Your task to perform on an android device: Open Chrome and go to settings Image 0: 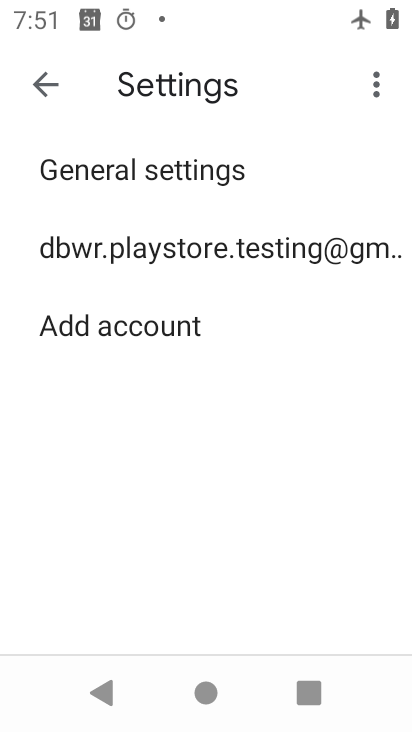
Step 0: press home button
Your task to perform on an android device: Open Chrome and go to settings Image 1: 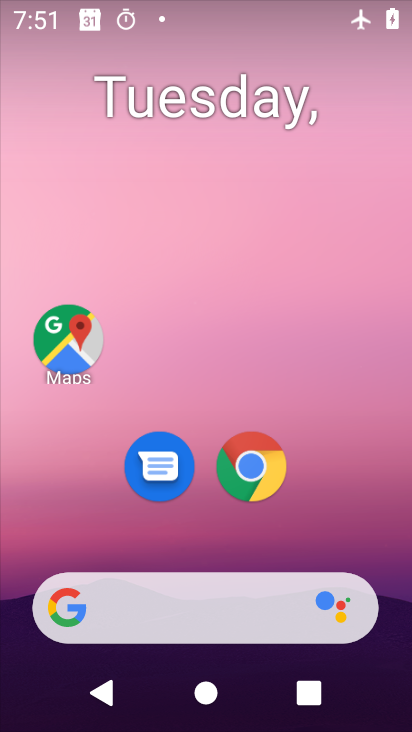
Step 1: click (250, 469)
Your task to perform on an android device: Open Chrome and go to settings Image 2: 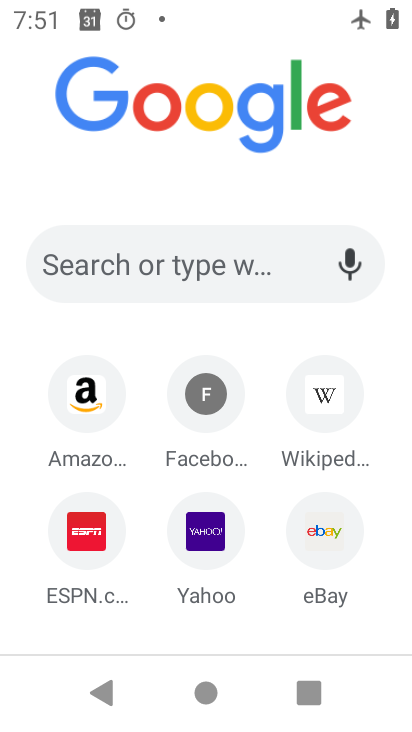
Step 2: drag from (10, 146) to (0, 311)
Your task to perform on an android device: Open Chrome and go to settings Image 3: 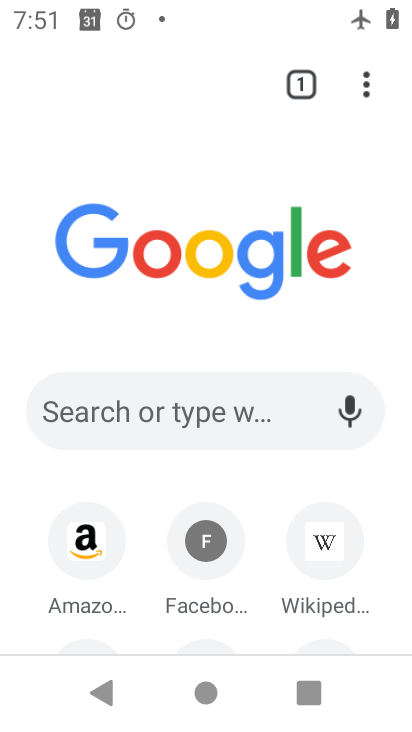
Step 3: click (361, 96)
Your task to perform on an android device: Open Chrome and go to settings Image 4: 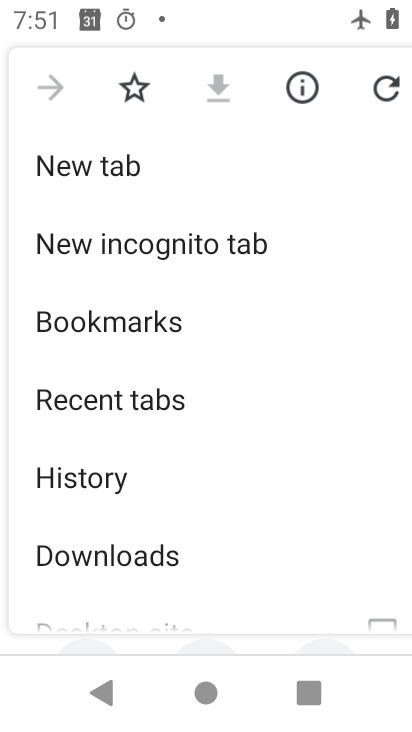
Step 4: drag from (5, 383) to (250, 137)
Your task to perform on an android device: Open Chrome and go to settings Image 5: 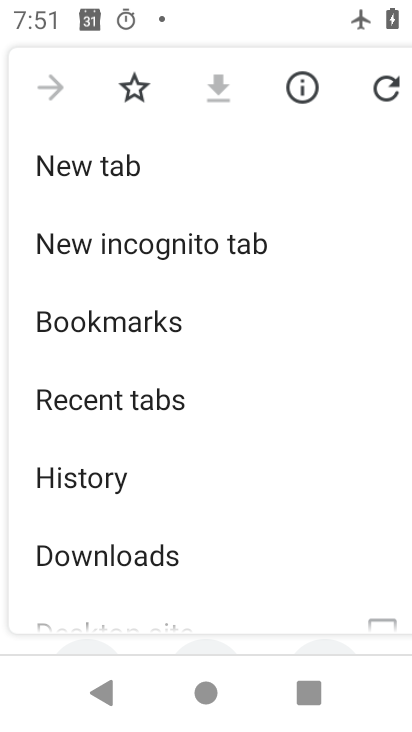
Step 5: drag from (8, 613) to (235, 138)
Your task to perform on an android device: Open Chrome and go to settings Image 6: 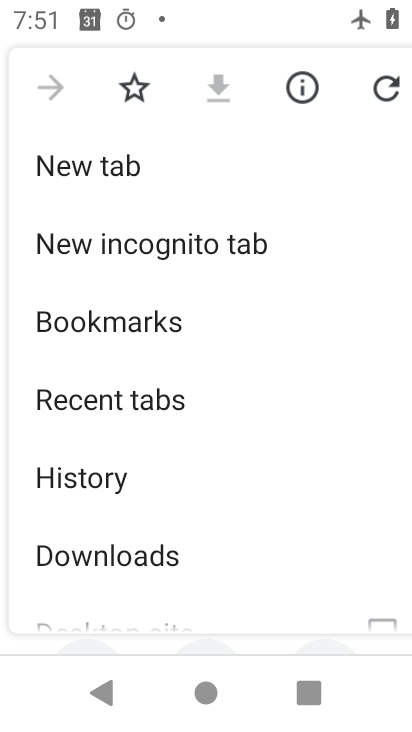
Step 6: drag from (12, 478) to (217, 199)
Your task to perform on an android device: Open Chrome and go to settings Image 7: 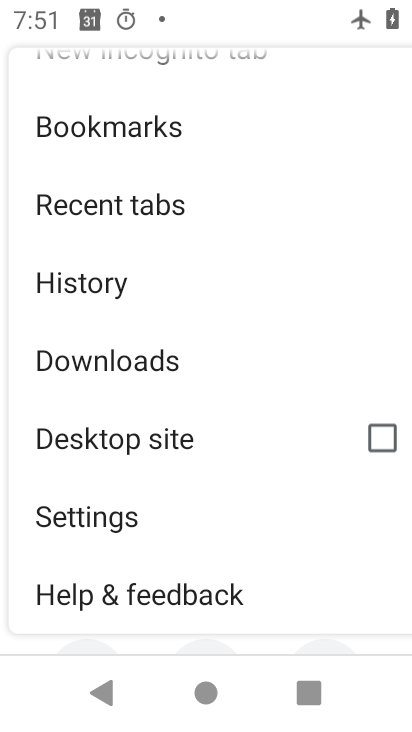
Step 7: click (70, 511)
Your task to perform on an android device: Open Chrome and go to settings Image 8: 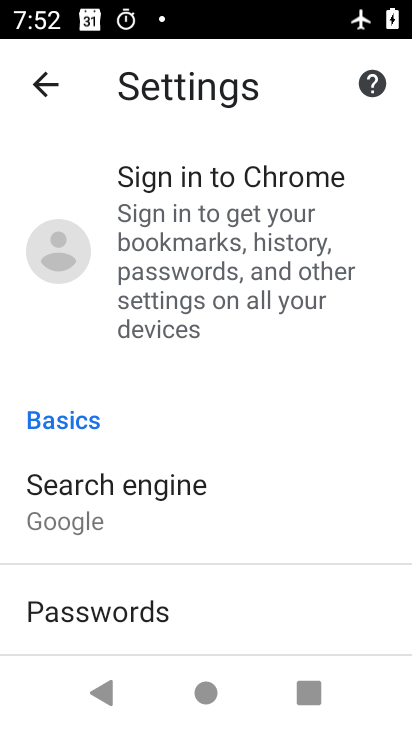
Step 8: task complete